Your task to perform on an android device: turn off picture-in-picture Image 0: 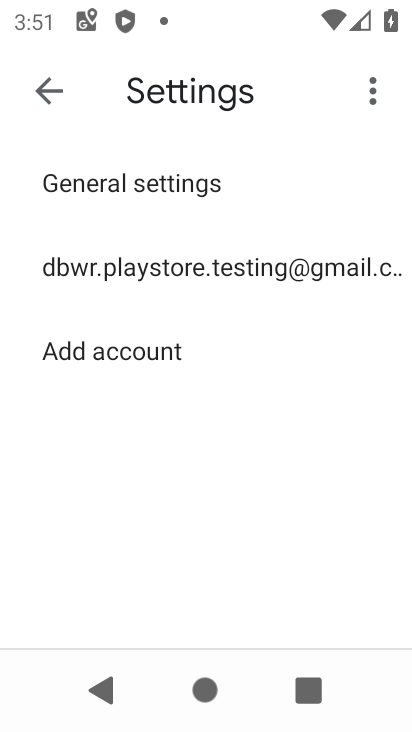
Step 0: task complete